Your task to perform on an android device: change the upload size in google photos Image 0: 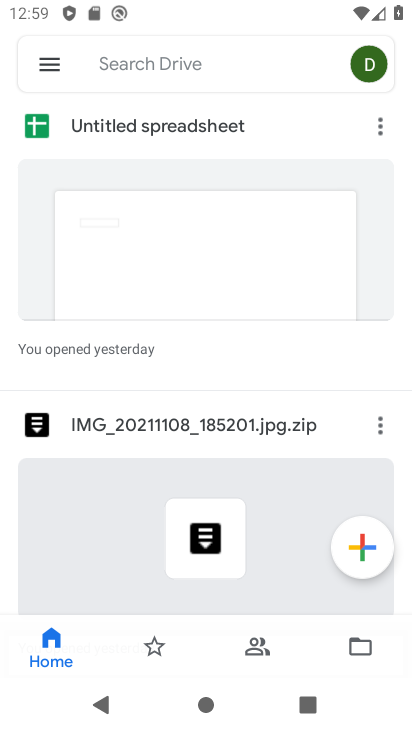
Step 0: press home button
Your task to perform on an android device: change the upload size in google photos Image 1: 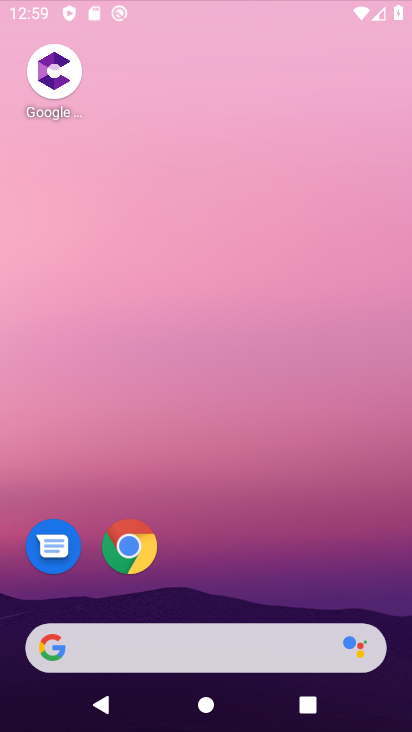
Step 1: drag from (256, 559) to (306, 153)
Your task to perform on an android device: change the upload size in google photos Image 2: 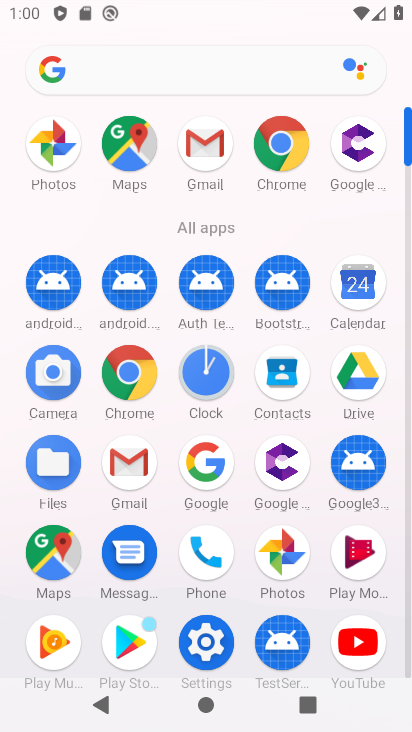
Step 2: click (267, 559)
Your task to perform on an android device: change the upload size in google photos Image 3: 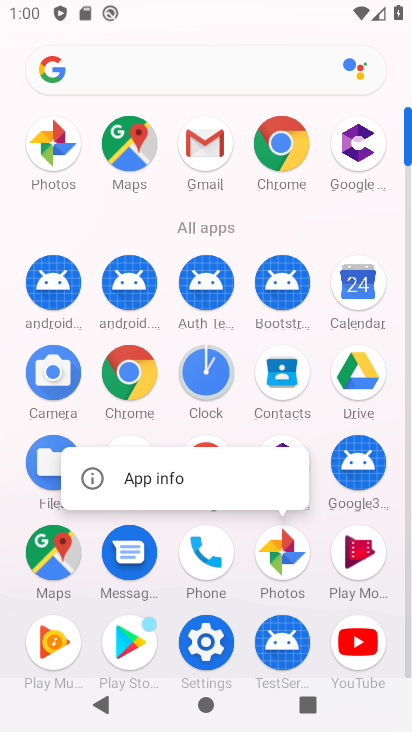
Step 3: click (113, 473)
Your task to perform on an android device: change the upload size in google photos Image 4: 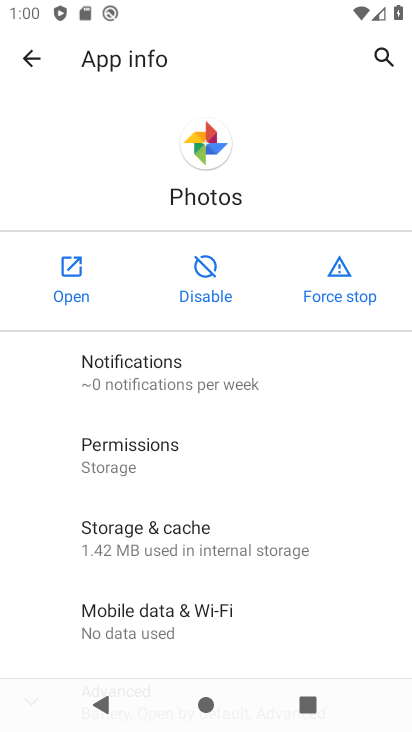
Step 4: click (68, 258)
Your task to perform on an android device: change the upload size in google photos Image 5: 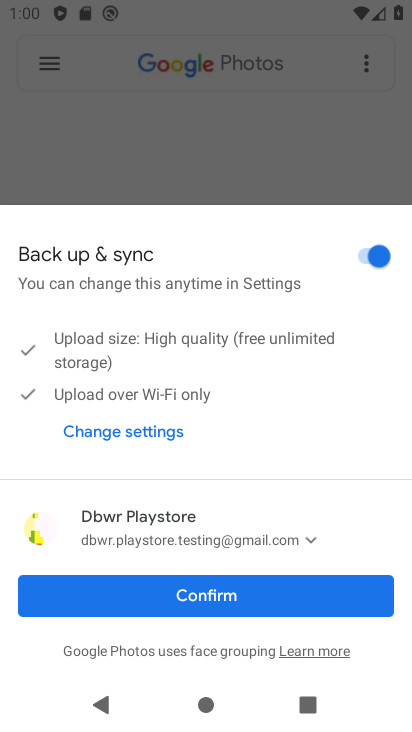
Step 5: click (185, 595)
Your task to perform on an android device: change the upload size in google photos Image 6: 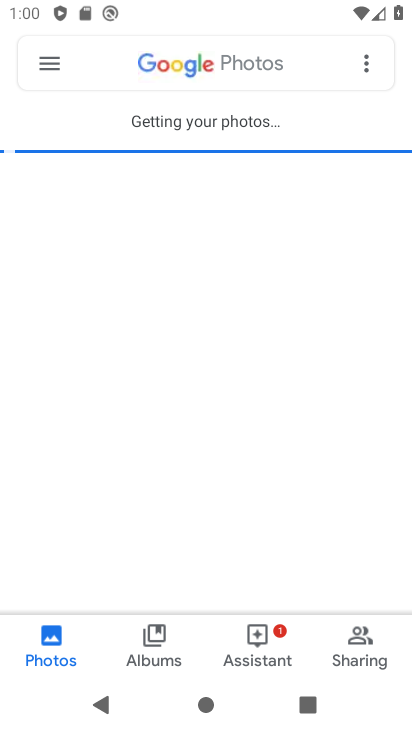
Step 6: click (46, 59)
Your task to perform on an android device: change the upload size in google photos Image 7: 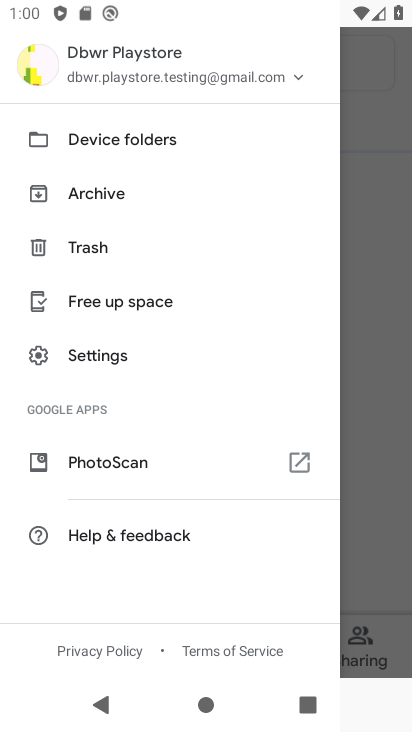
Step 7: click (120, 349)
Your task to perform on an android device: change the upload size in google photos Image 8: 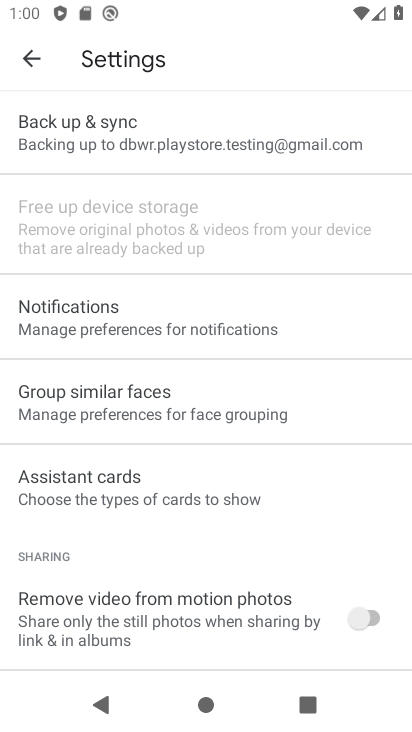
Step 8: drag from (241, 575) to (353, 164)
Your task to perform on an android device: change the upload size in google photos Image 9: 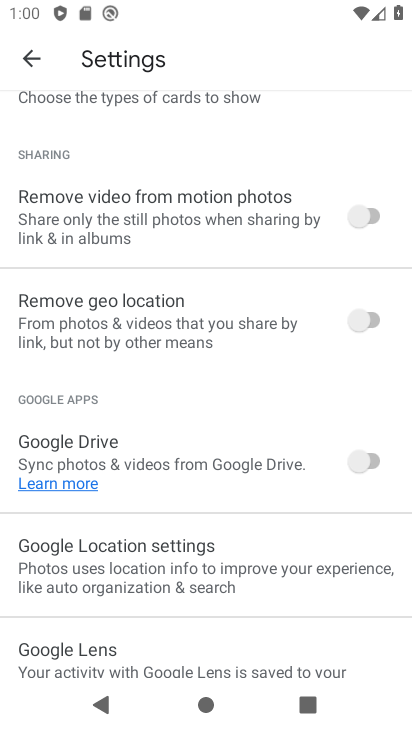
Step 9: drag from (166, 613) to (244, 210)
Your task to perform on an android device: change the upload size in google photos Image 10: 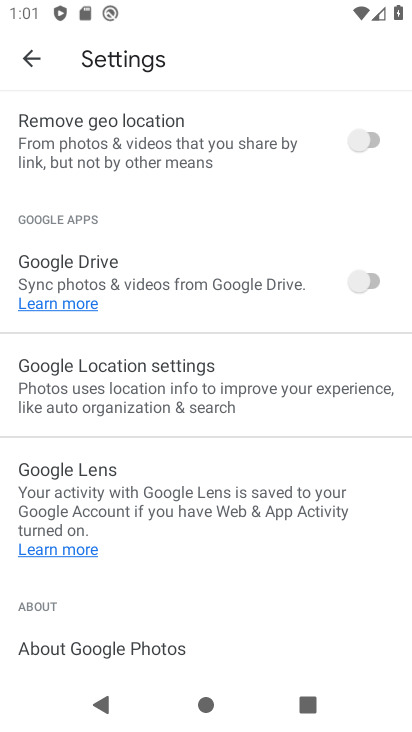
Step 10: drag from (154, 526) to (259, 197)
Your task to perform on an android device: change the upload size in google photos Image 11: 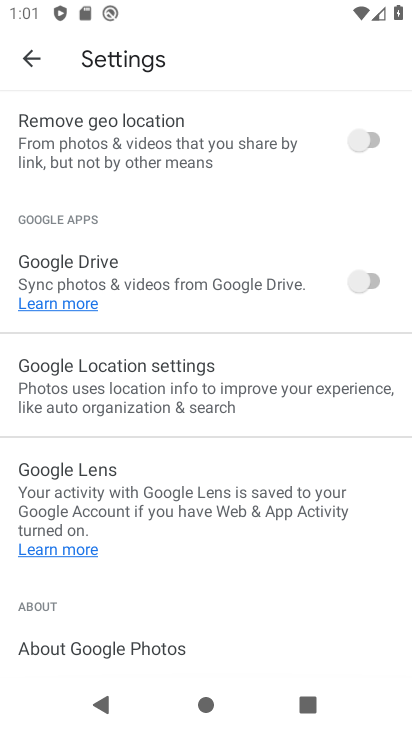
Step 11: drag from (234, 239) to (246, 682)
Your task to perform on an android device: change the upload size in google photos Image 12: 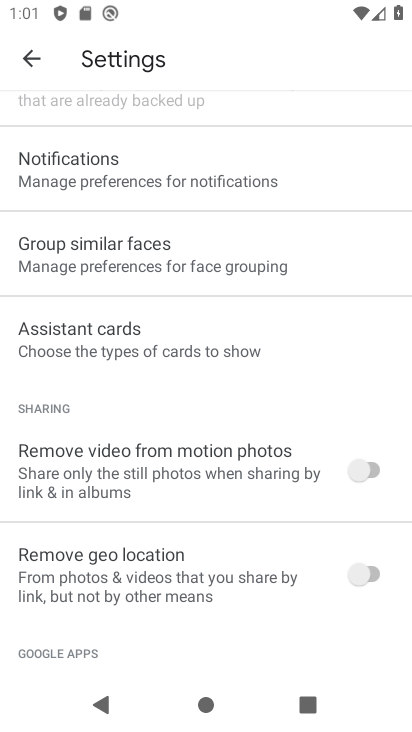
Step 12: drag from (148, 229) to (250, 625)
Your task to perform on an android device: change the upload size in google photos Image 13: 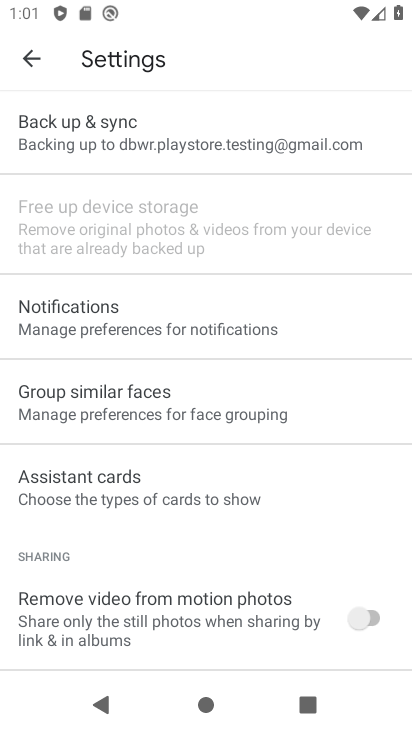
Step 13: click (64, 135)
Your task to perform on an android device: change the upload size in google photos Image 14: 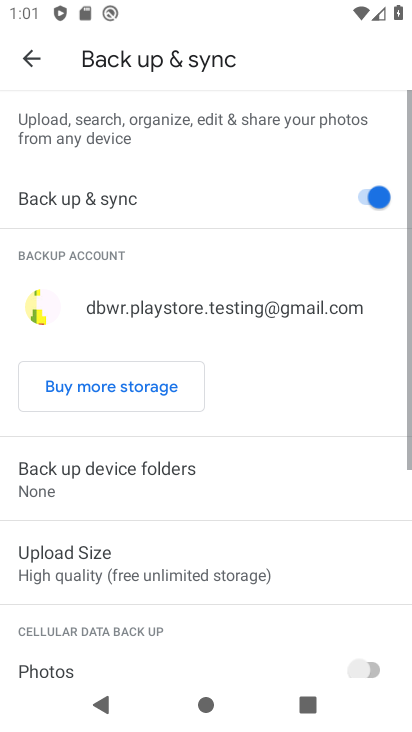
Step 14: drag from (200, 441) to (268, 91)
Your task to perform on an android device: change the upload size in google photos Image 15: 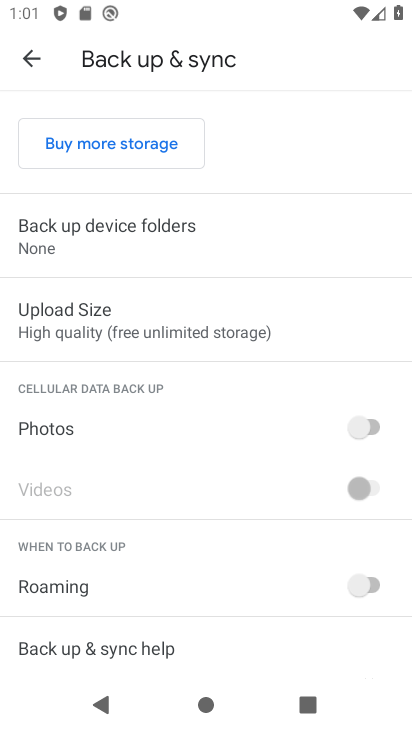
Step 15: click (109, 297)
Your task to perform on an android device: change the upload size in google photos Image 16: 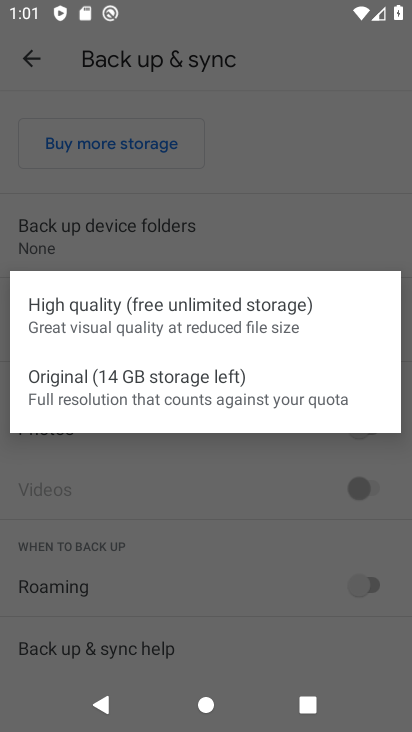
Step 16: click (131, 323)
Your task to perform on an android device: change the upload size in google photos Image 17: 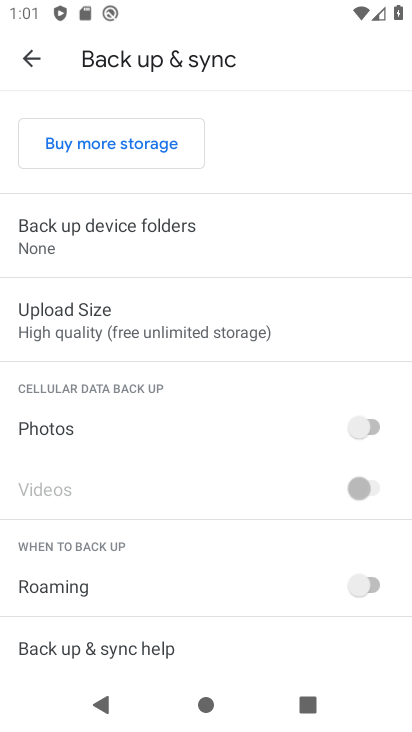
Step 17: task complete